Your task to perform on an android device: find which apps use the phone's location Image 0: 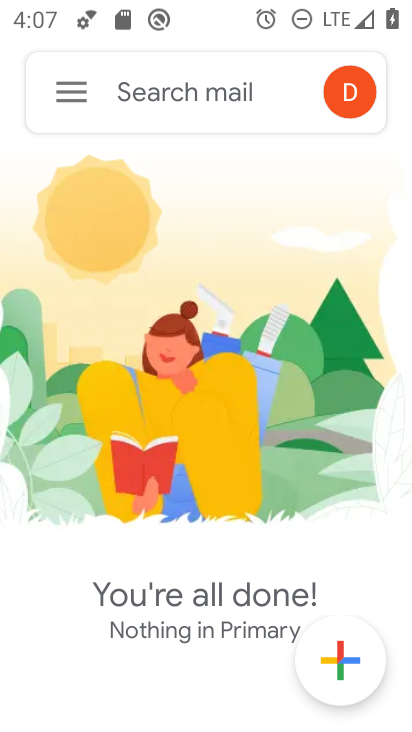
Step 0: press home button
Your task to perform on an android device: find which apps use the phone's location Image 1: 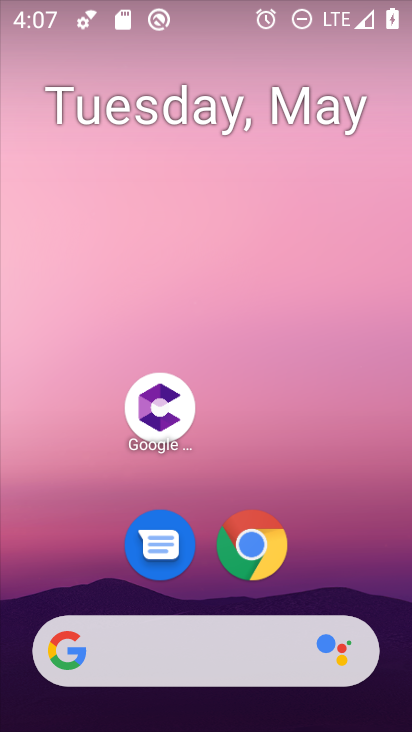
Step 1: drag from (364, 568) to (350, 74)
Your task to perform on an android device: find which apps use the phone's location Image 2: 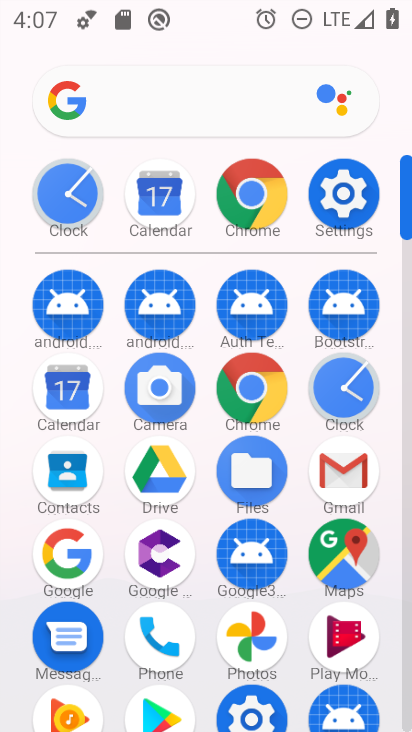
Step 2: click (356, 189)
Your task to perform on an android device: find which apps use the phone's location Image 3: 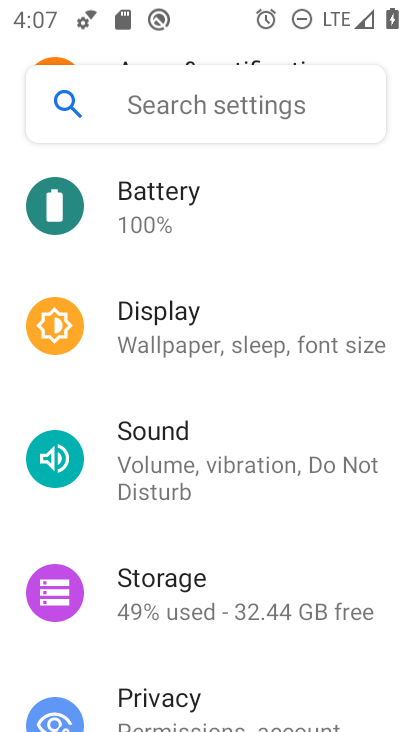
Step 3: drag from (360, 550) to (364, 392)
Your task to perform on an android device: find which apps use the phone's location Image 4: 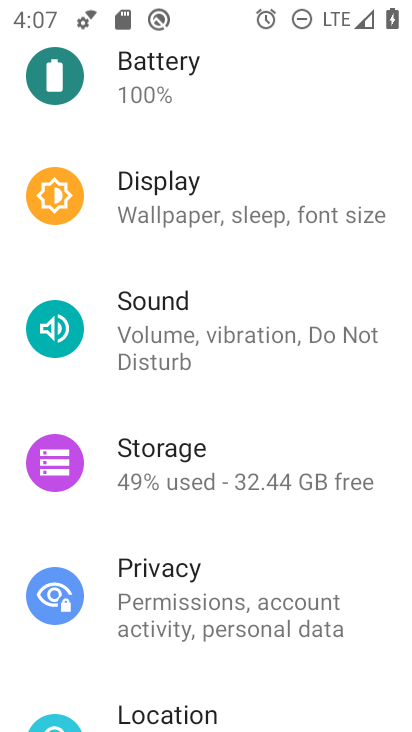
Step 4: drag from (361, 568) to (374, 435)
Your task to perform on an android device: find which apps use the phone's location Image 5: 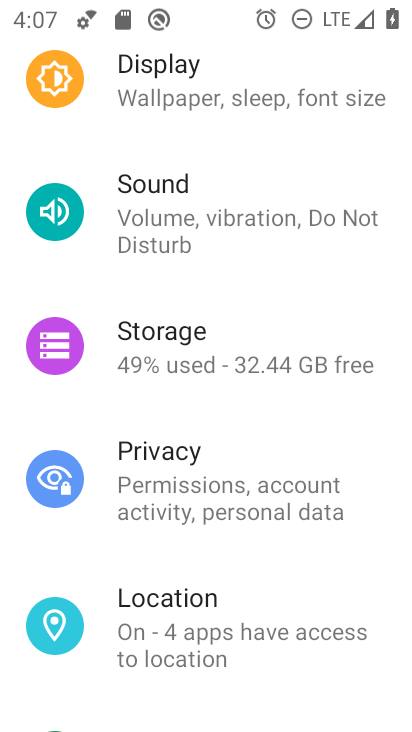
Step 5: drag from (343, 589) to (353, 480)
Your task to perform on an android device: find which apps use the phone's location Image 6: 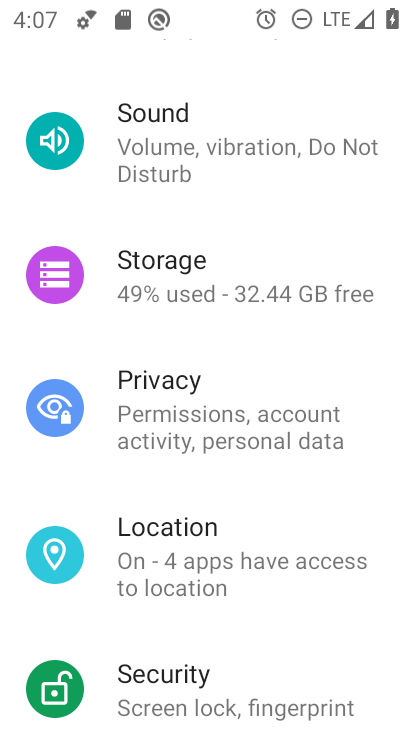
Step 6: drag from (361, 628) to (362, 498)
Your task to perform on an android device: find which apps use the phone's location Image 7: 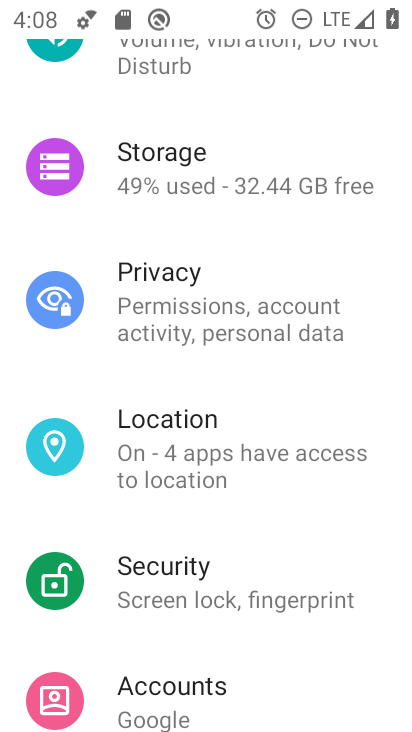
Step 7: drag from (354, 654) to (354, 556)
Your task to perform on an android device: find which apps use the phone's location Image 8: 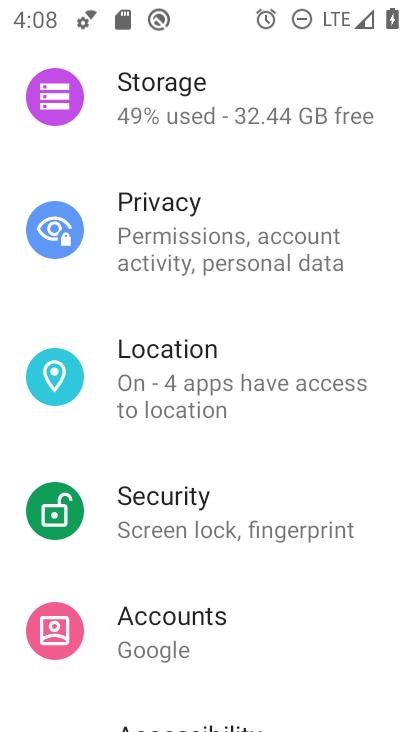
Step 8: drag from (357, 662) to (355, 560)
Your task to perform on an android device: find which apps use the phone's location Image 9: 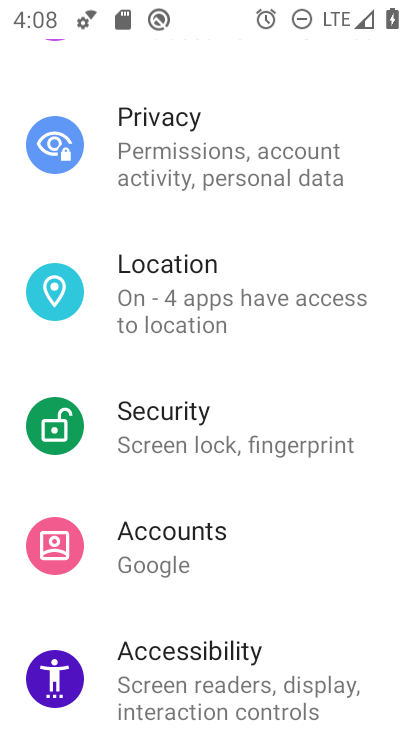
Step 9: drag from (348, 644) to (350, 495)
Your task to perform on an android device: find which apps use the phone's location Image 10: 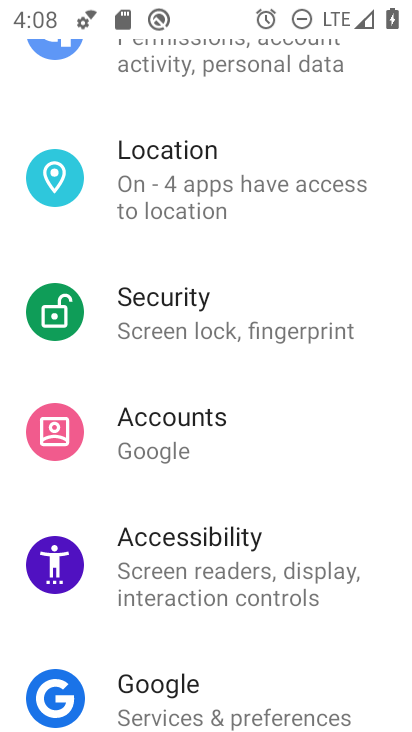
Step 10: drag from (350, 657) to (356, 544)
Your task to perform on an android device: find which apps use the phone's location Image 11: 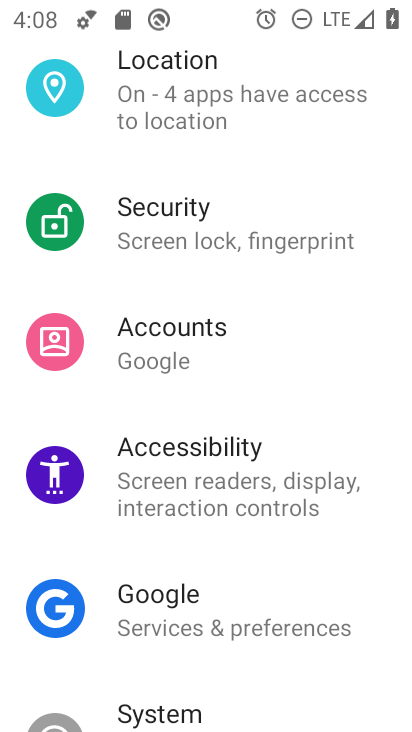
Step 11: drag from (356, 683) to (359, 561)
Your task to perform on an android device: find which apps use the phone's location Image 12: 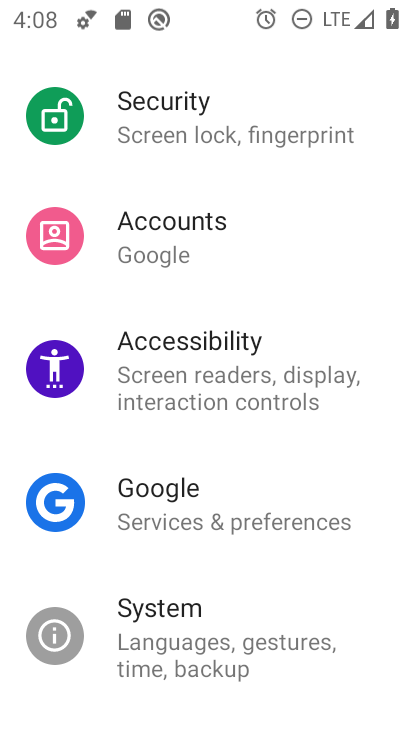
Step 12: drag from (365, 693) to (363, 574)
Your task to perform on an android device: find which apps use the phone's location Image 13: 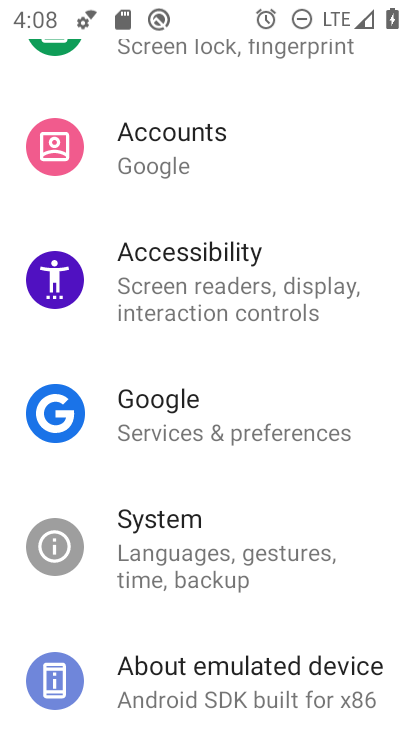
Step 13: drag from (378, 385) to (370, 462)
Your task to perform on an android device: find which apps use the phone's location Image 14: 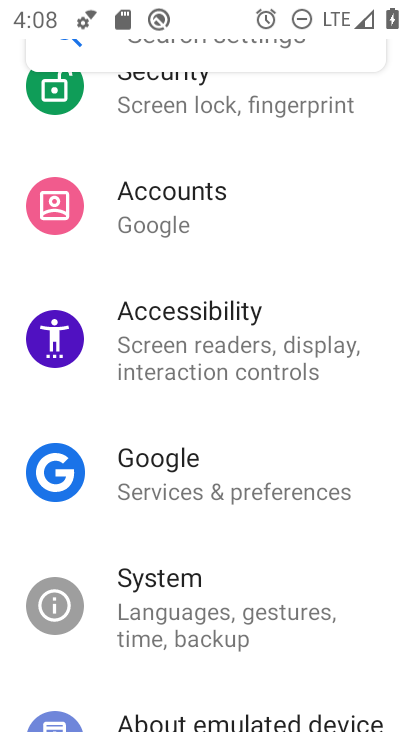
Step 14: drag from (373, 357) to (369, 450)
Your task to perform on an android device: find which apps use the phone's location Image 15: 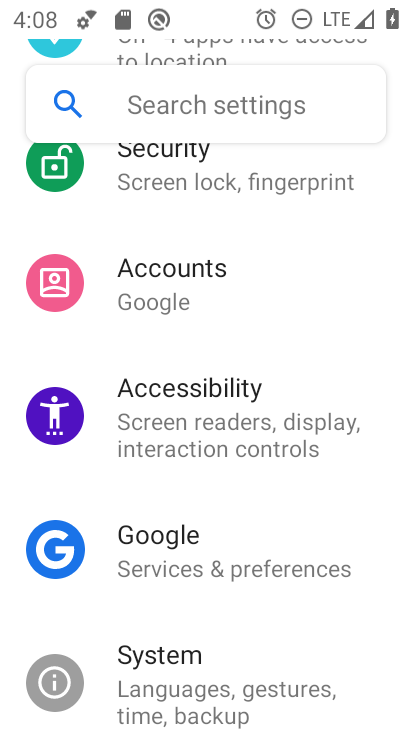
Step 15: drag from (370, 338) to (359, 465)
Your task to perform on an android device: find which apps use the phone's location Image 16: 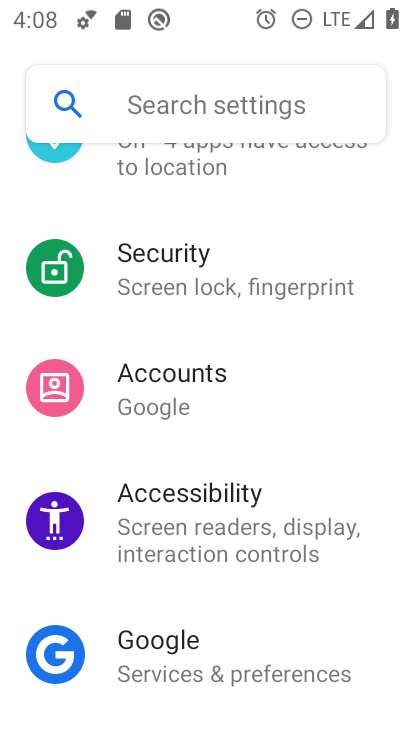
Step 16: drag from (346, 240) to (350, 444)
Your task to perform on an android device: find which apps use the phone's location Image 17: 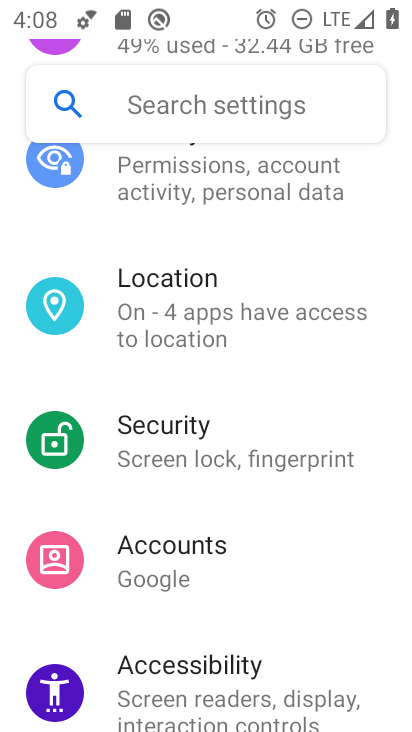
Step 17: click (205, 325)
Your task to perform on an android device: find which apps use the phone's location Image 18: 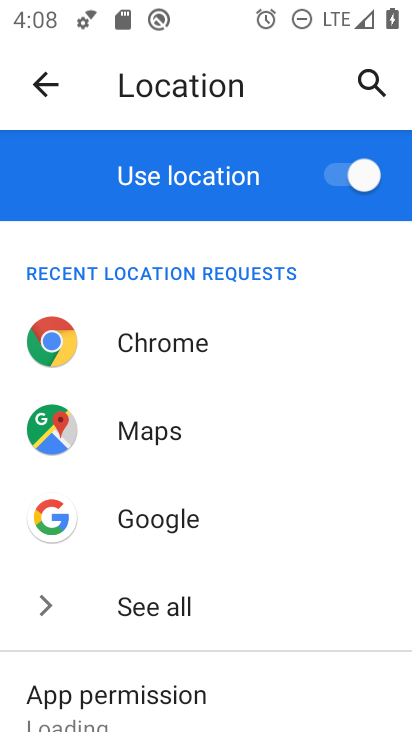
Step 18: drag from (275, 538) to (293, 400)
Your task to perform on an android device: find which apps use the phone's location Image 19: 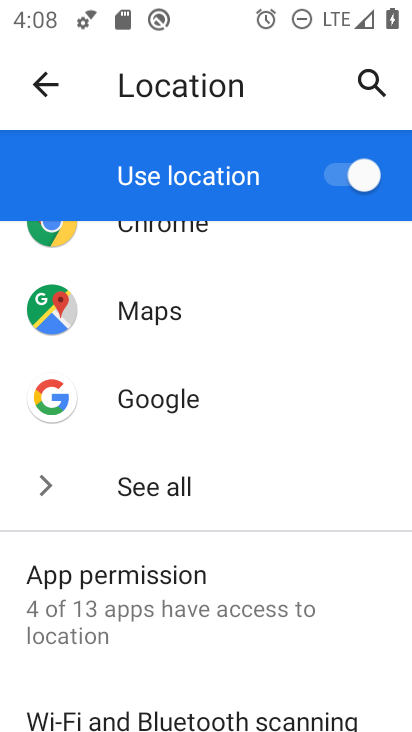
Step 19: drag from (271, 563) to (271, 430)
Your task to perform on an android device: find which apps use the phone's location Image 20: 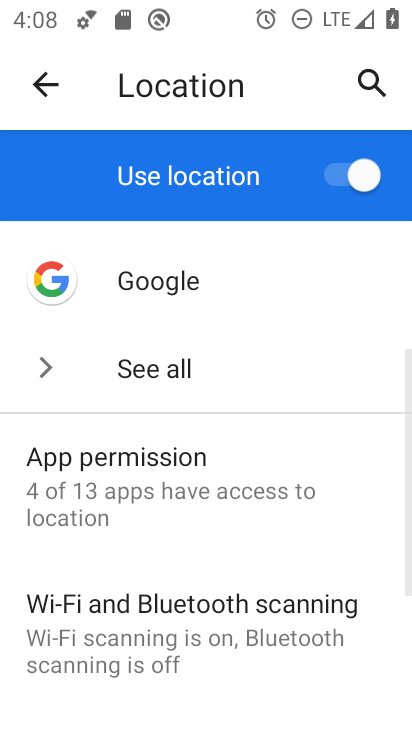
Step 20: click (247, 499)
Your task to perform on an android device: find which apps use the phone's location Image 21: 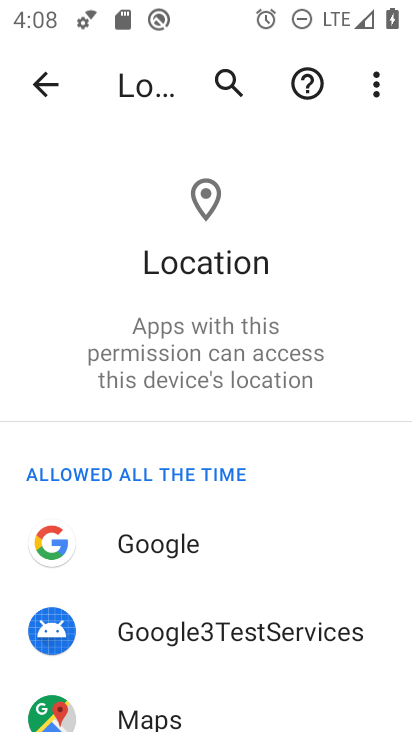
Step 21: drag from (265, 577) to (275, 433)
Your task to perform on an android device: find which apps use the phone's location Image 22: 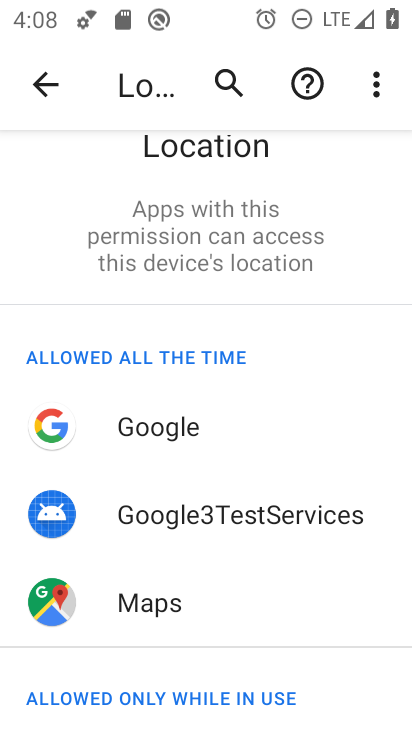
Step 22: drag from (281, 581) to (287, 445)
Your task to perform on an android device: find which apps use the phone's location Image 23: 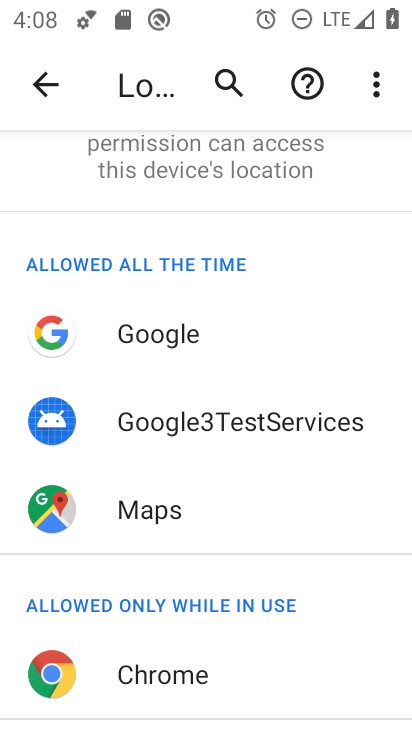
Step 23: drag from (290, 651) to (289, 488)
Your task to perform on an android device: find which apps use the phone's location Image 24: 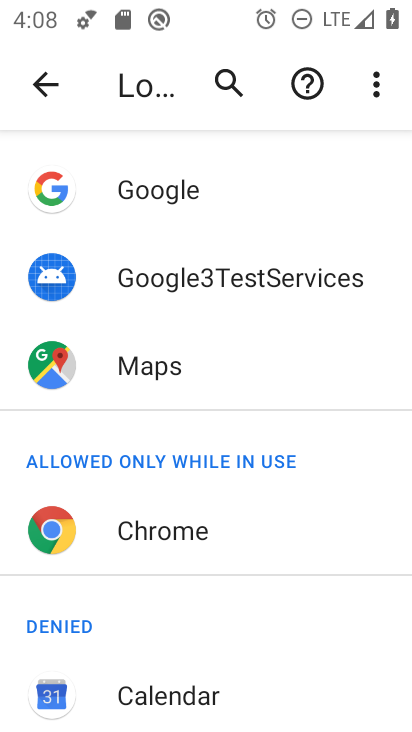
Step 24: drag from (282, 647) to (289, 508)
Your task to perform on an android device: find which apps use the phone's location Image 25: 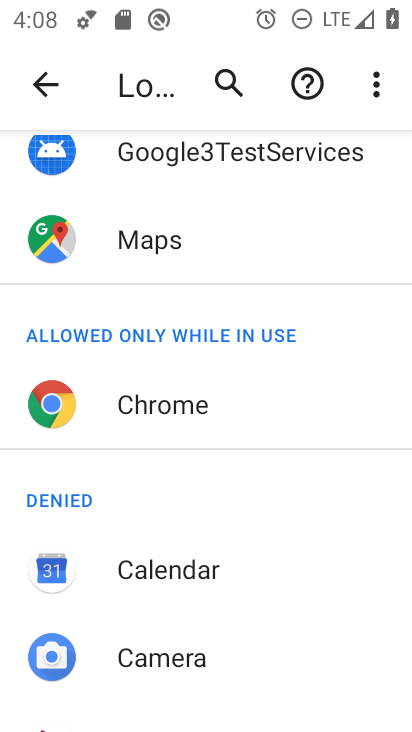
Step 25: drag from (288, 632) to (296, 493)
Your task to perform on an android device: find which apps use the phone's location Image 26: 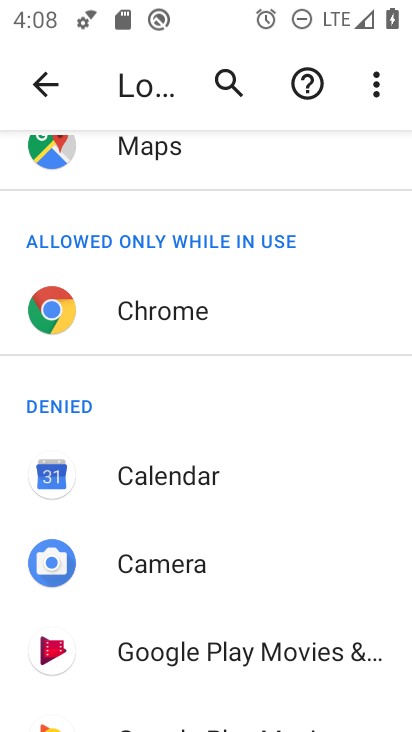
Step 26: drag from (268, 676) to (276, 516)
Your task to perform on an android device: find which apps use the phone's location Image 27: 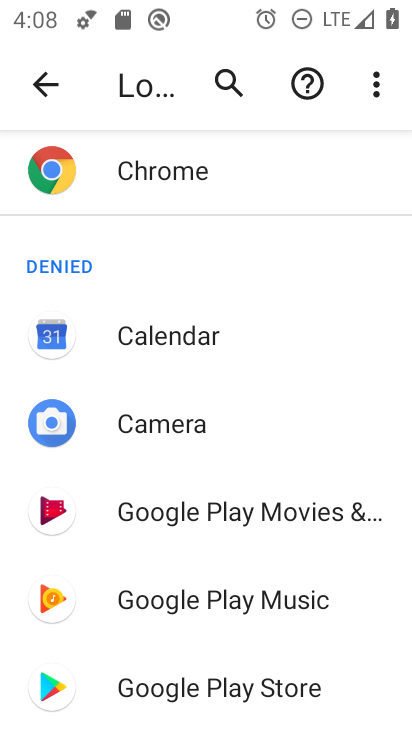
Step 27: drag from (271, 653) to (267, 525)
Your task to perform on an android device: find which apps use the phone's location Image 28: 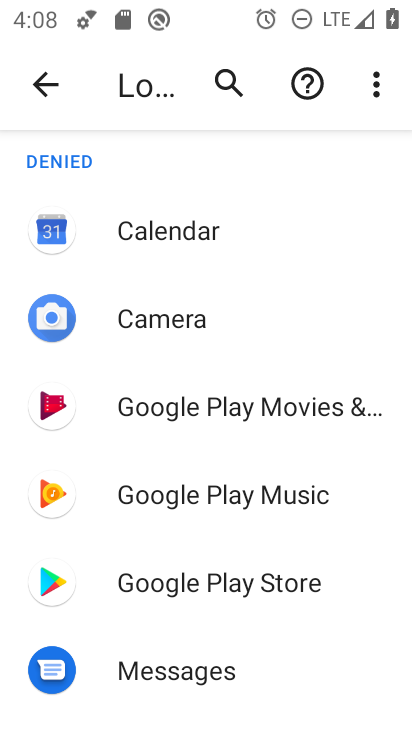
Step 28: drag from (288, 675) to (292, 534)
Your task to perform on an android device: find which apps use the phone's location Image 29: 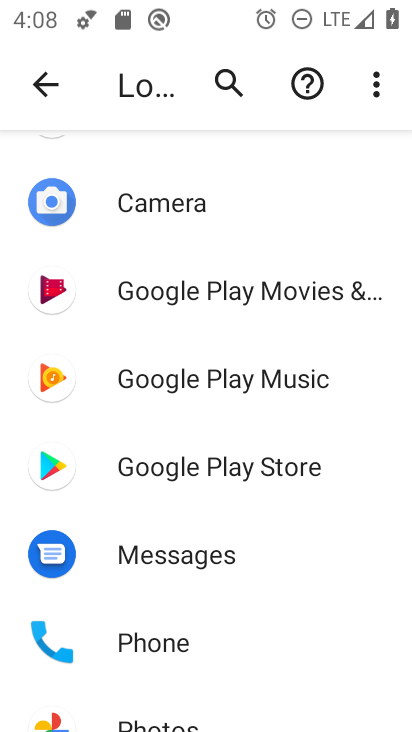
Step 29: drag from (289, 674) to (298, 546)
Your task to perform on an android device: find which apps use the phone's location Image 30: 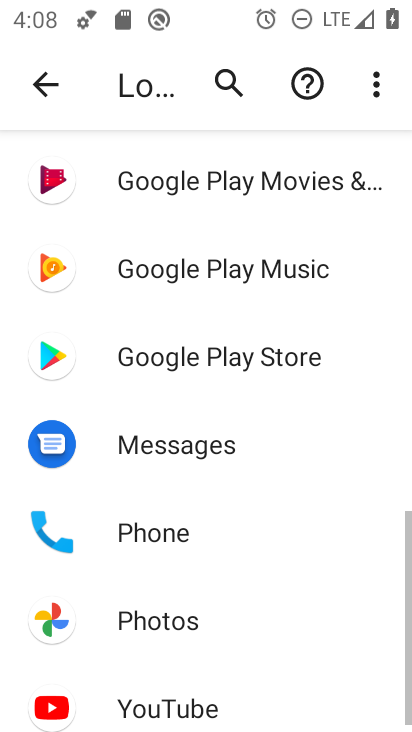
Step 30: click (198, 629)
Your task to perform on an android device: find which apps use the phone's location Image 31: 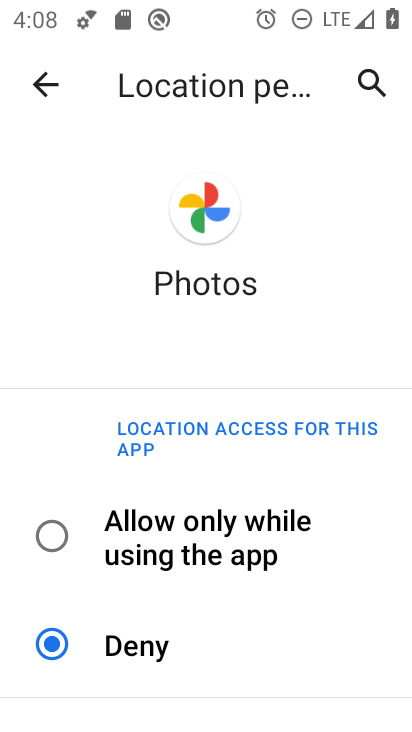
Step 31: click (117, 544)
Your task to perform on an android device: find which apps use the phone's location Image 32: 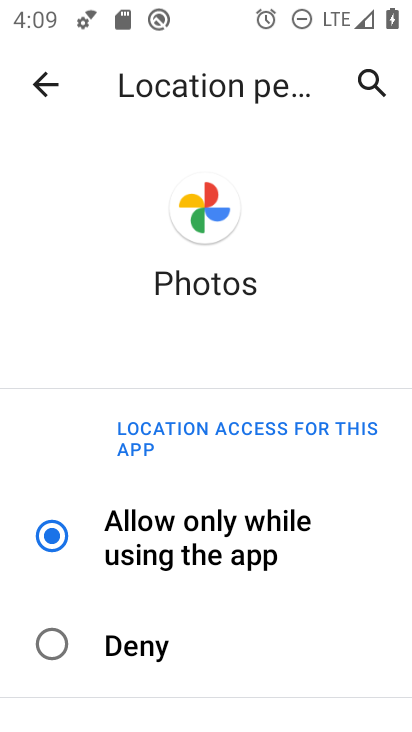
Step 32: task complete